Your task to perform on an android device: change the clock display to analog Image 0: 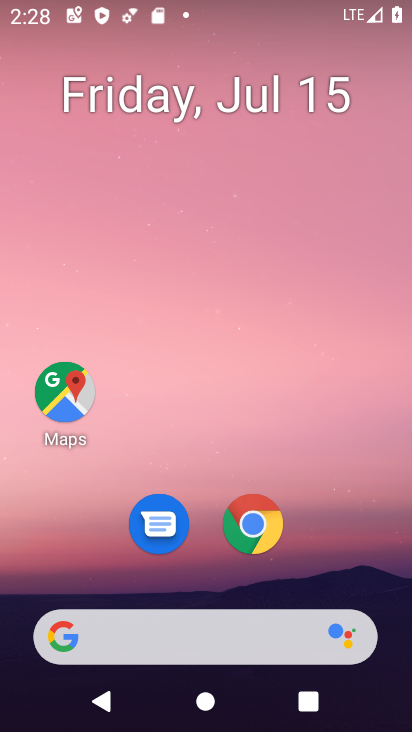
Step 0: drag from (269, 631) to (274, 134)
Your task to perform on an android device: change the clock display to analog Image 1: 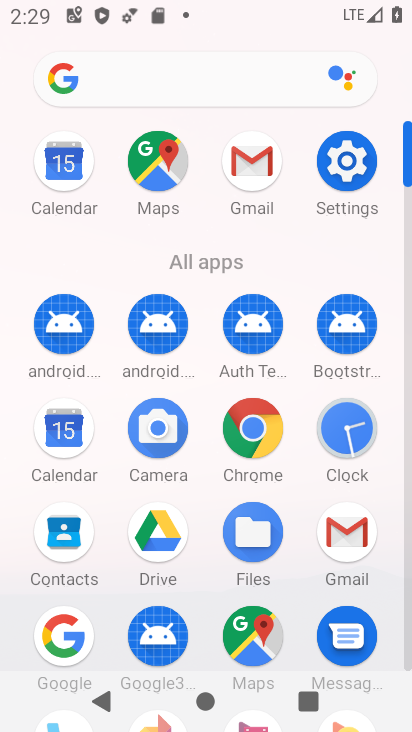
Step 1: click (347, 438)
Your task to perform on an android device: change the clock display to analog Image 2: 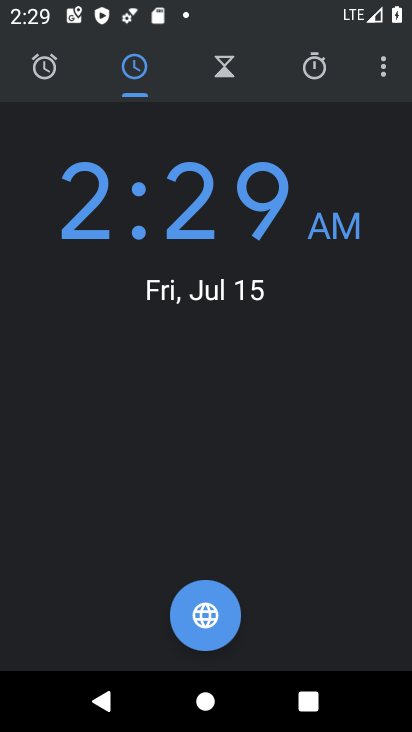
Step 2: click (390, 77)
Your task to perform on an android device: change the clock display to analog Image 3: 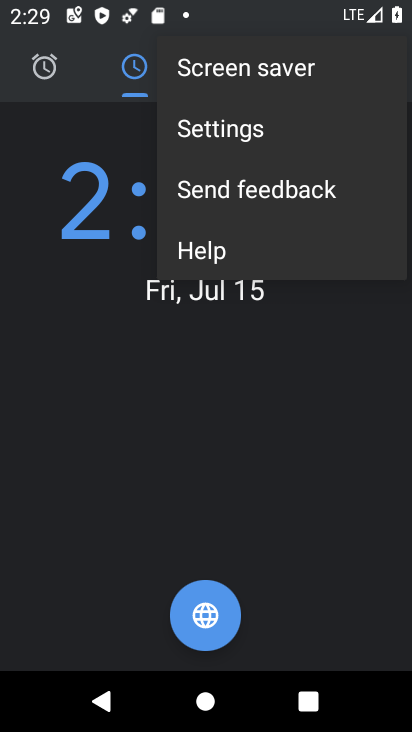
Step 3: click (274, 131)
Your task to perform on an android device: change the clock display to analog Image 4: 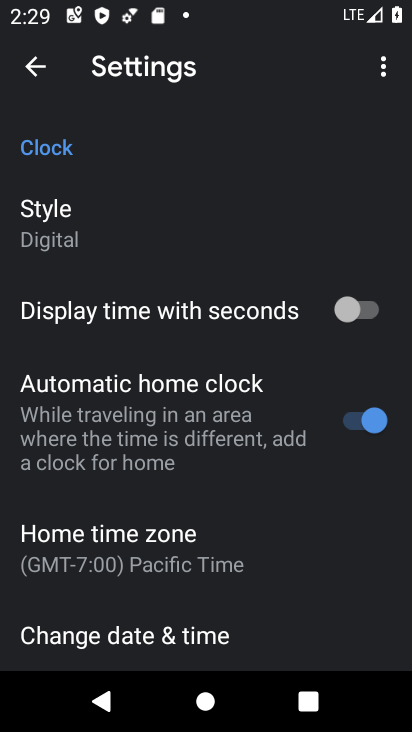
Step 4: click (64, 237)
Your task to perform on an android device: change the clock display to analog Image 5: 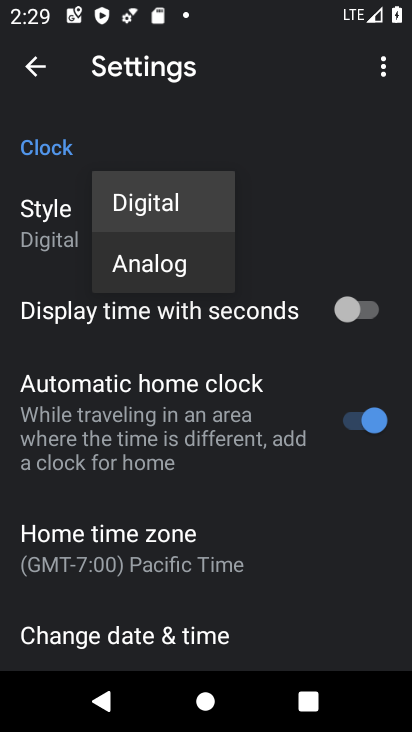
Step 5: click (132, 262)
Your task to perform on an android device: change the clock display to analog Image 6: 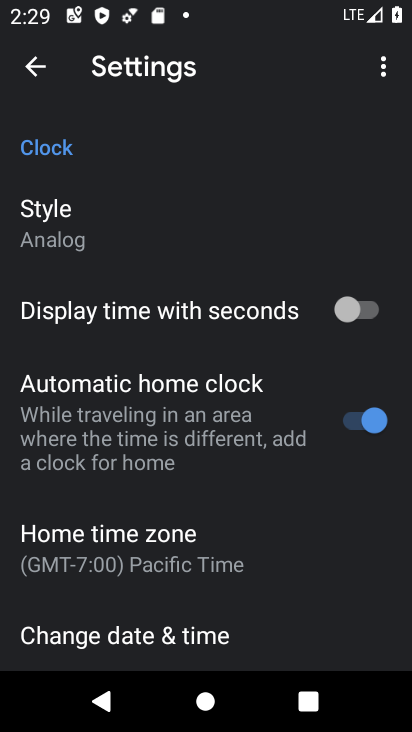
Step 6: task complete